Your task to perform on an android device: Go to Google maps Image 0: 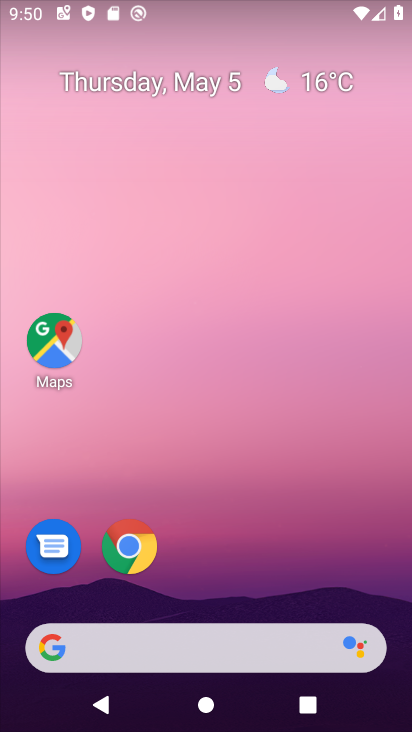
Step 0: drag from (277, 590) to (275, 48)
Your task to perform on an android device: Go to Google maps Image 1: 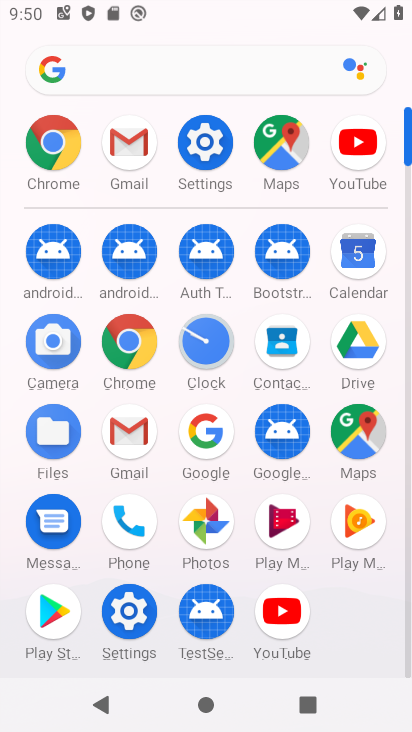
Step 1: click (278, 137)
Your task to perform on an android device: Go to Google maps Image 2: 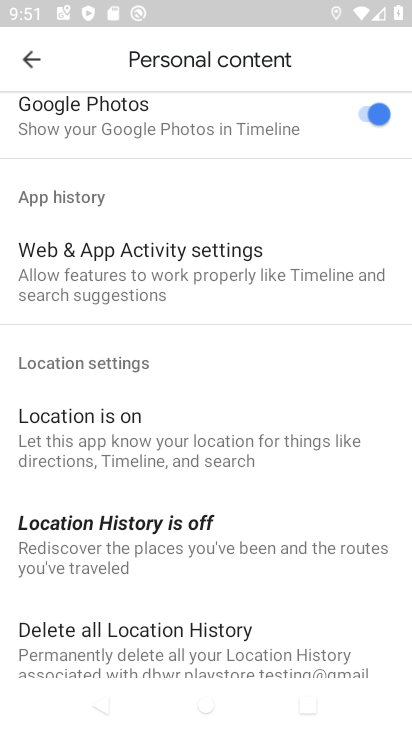
Step 2: click (32, 64)
Your task to perform on an android device: Go to Google maps Image 3: 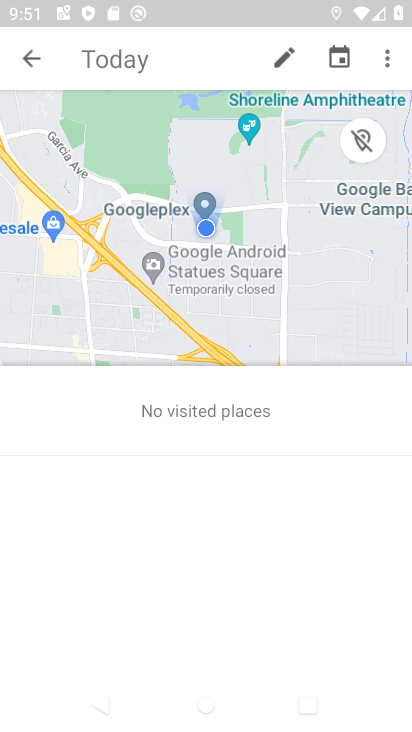
Step 3: click (32, 64)
Your task to perform on an android device: Go to Google maps Image 4: 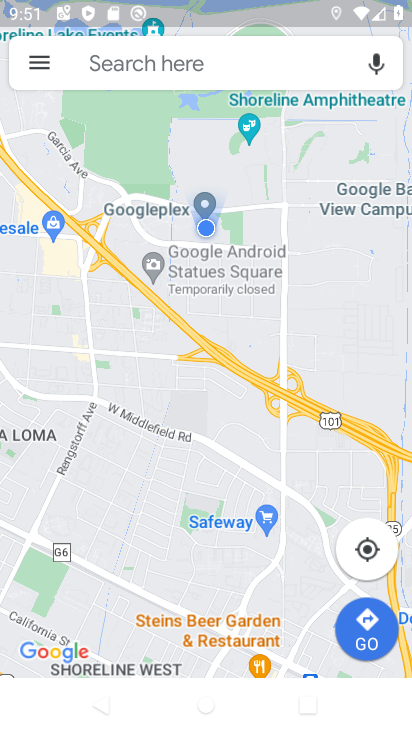
Step 4: task complete